Your task to perform on an android device: Go to battery settings Image 0: 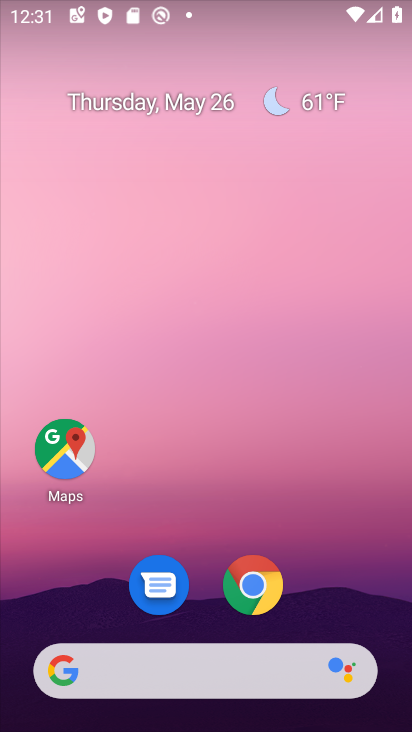
Step 0: drag from (222, 470) to (252, 46)
Your task to perform on an android device: Go to battery settings Image 1: 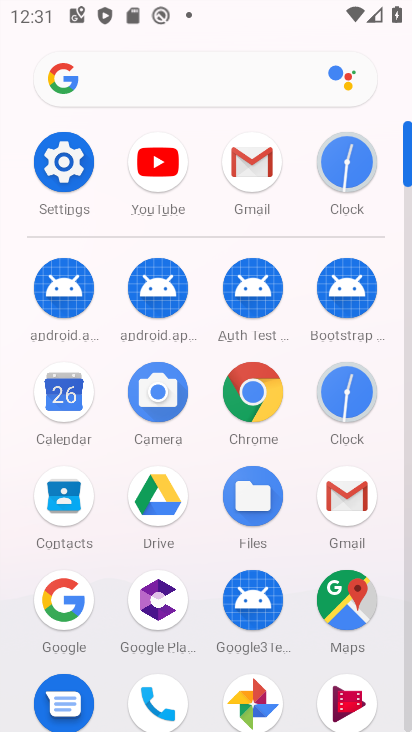
Step 1: click (79, 162)
Your task to perform on an android device: Go to battery settings Image 2: 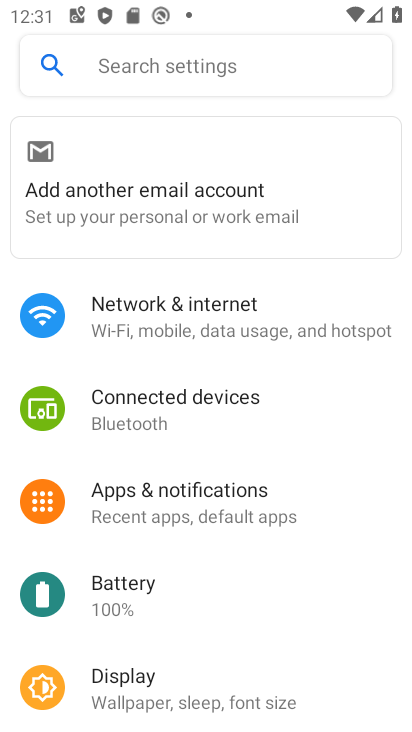
Step 2: click (171, 590)
Your task to perform on an android device: Go to battery settings Image 3: 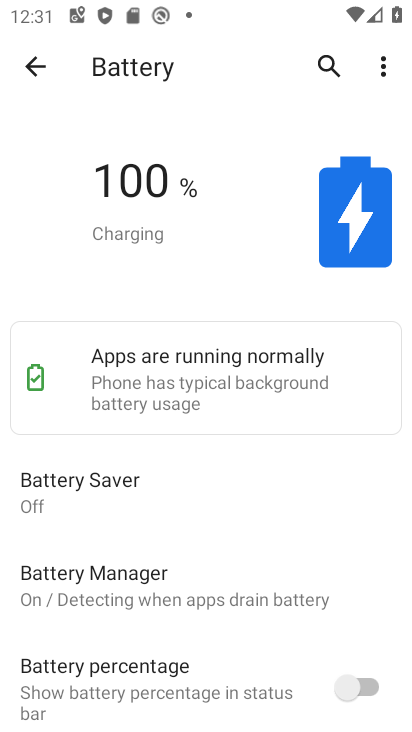
Step 3: task complete